Your task to perform on an android device: turn off data saver in the chrome app Image 0: 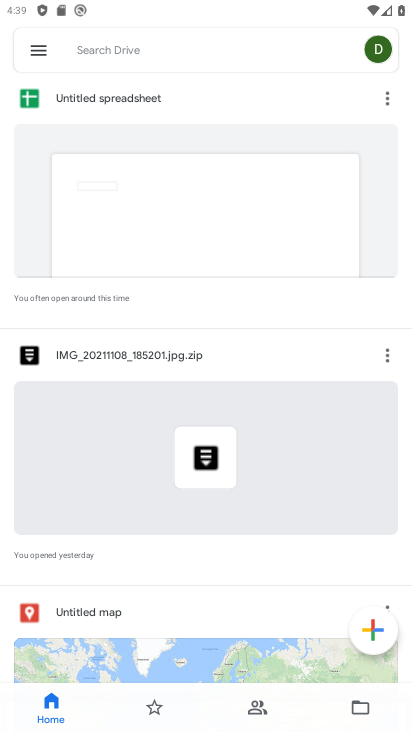
Step 0: press home button
Your task to perform on an android device: turn off data saver in the chrome app Image 1: 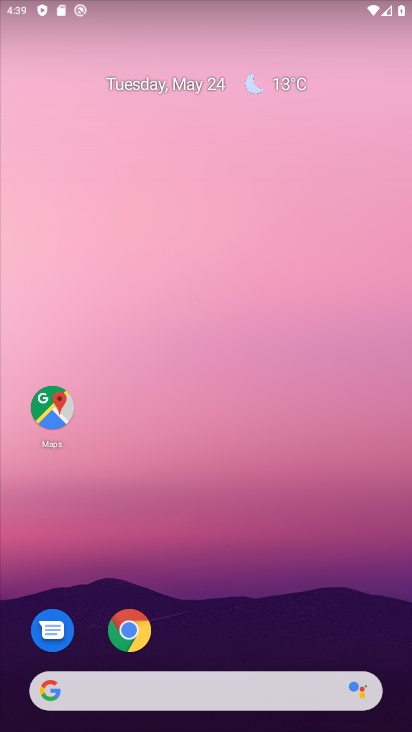
Step 1: click (136, 634)
Your task to perform on an android device: turn off data saver in the chrome app Image 2: 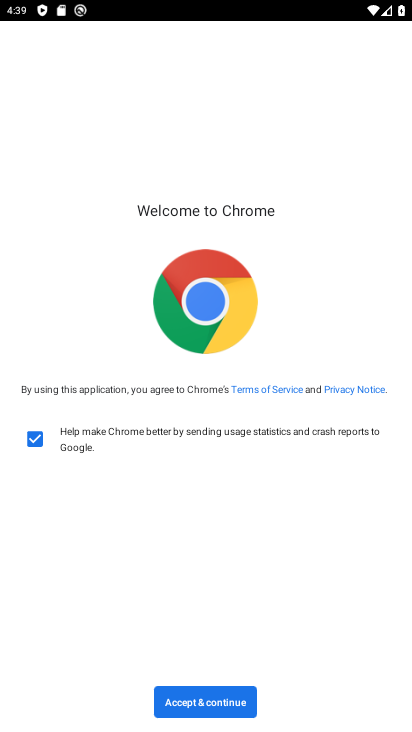
Step 2: click (211, 708)
Your task to perform on an android device: turn off data saver in the chrome app Image 3: 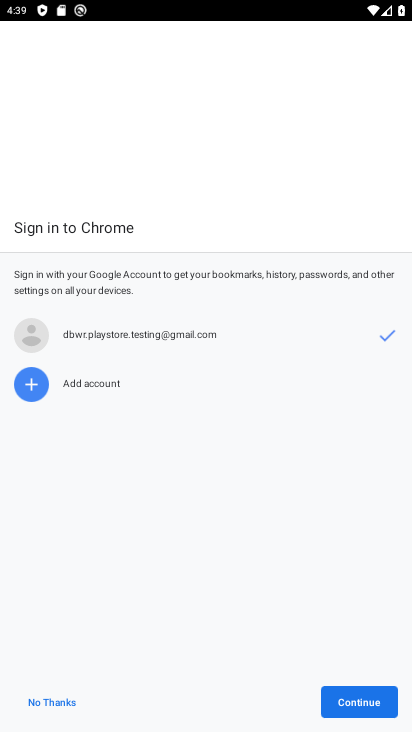
Step 3: click (377, 706)
Your task to perform on an android device: turn off data saver in the chrome app Image 4: 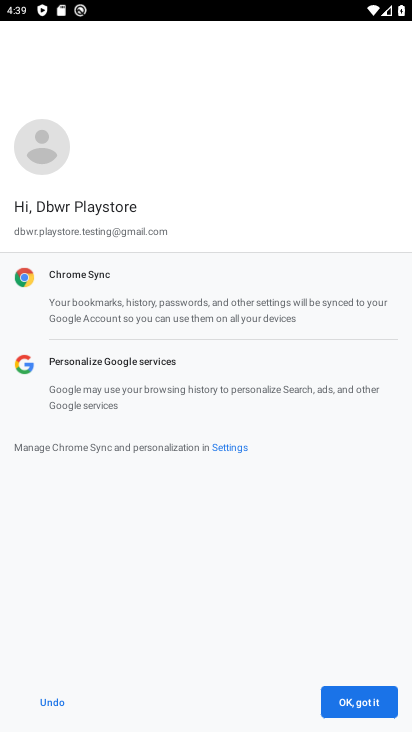
Step 4: click (354, 717)
Your task to perform on an android device: turn off data saver in the chrome app Image 5: 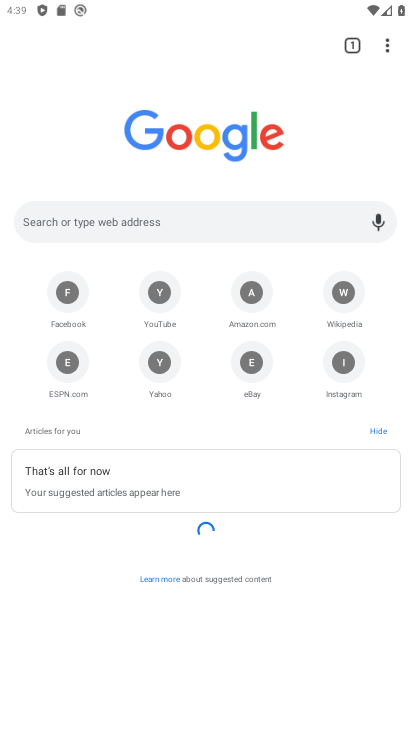
Step 5: click (390, 50)
Your task to perform on an android device: turn off data saver in the chrome app Image 6: 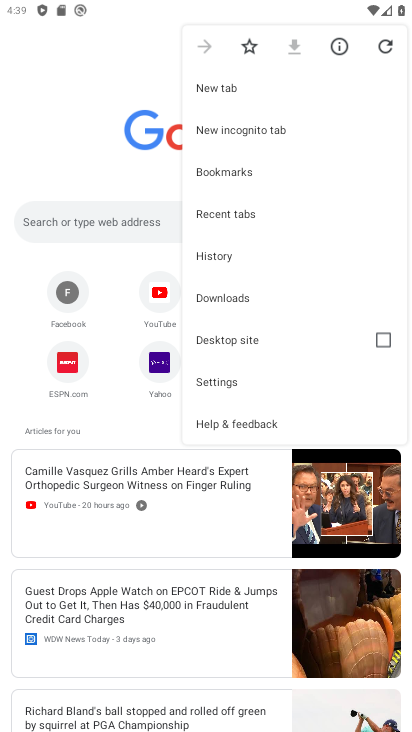
Step 6: click (218, 386)
Your task to perform on an android device: turn off data saver in the chrome app Image 7: 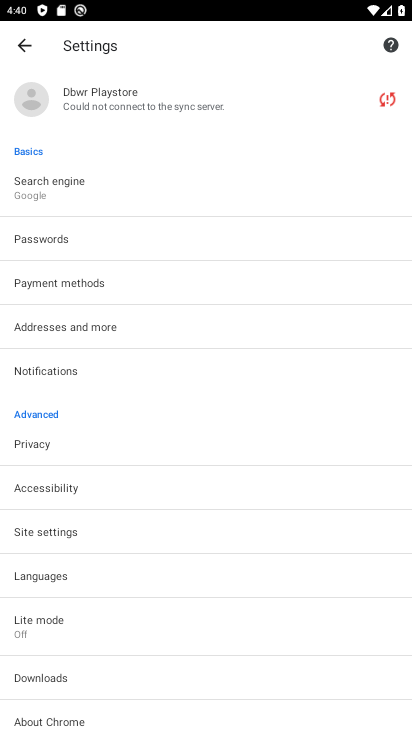
Step 7: click (48, 643)
Your task to perform on an android device: turn off data saver in the chrome app Image 8: 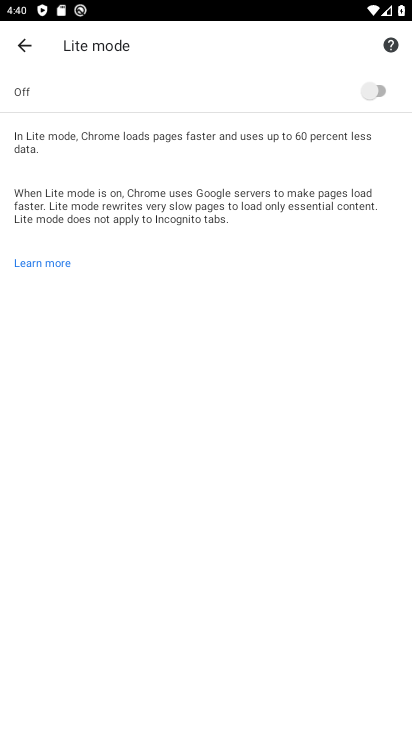
Step 8: task complete